Your task to perform on an android device: turn on data saver in the chrome app Image 0: 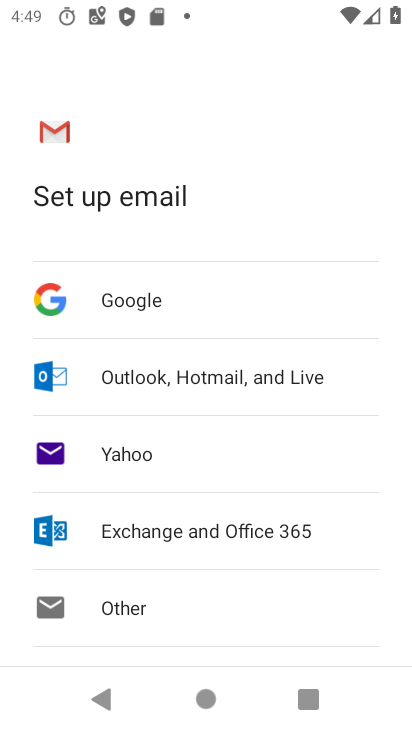
Step 0: press home button
Your task to perform on an android device: turn on data saver in the chrome app Image 1: 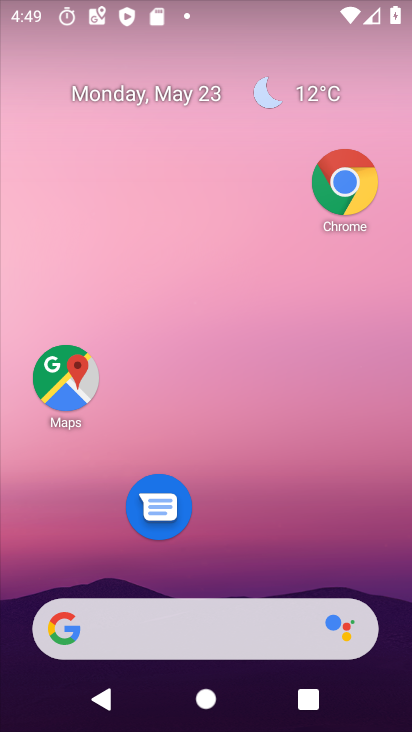
Step 1: click (337, 185)
Your task to perform on an android device: turn on data saver in the chrome app Image 2: 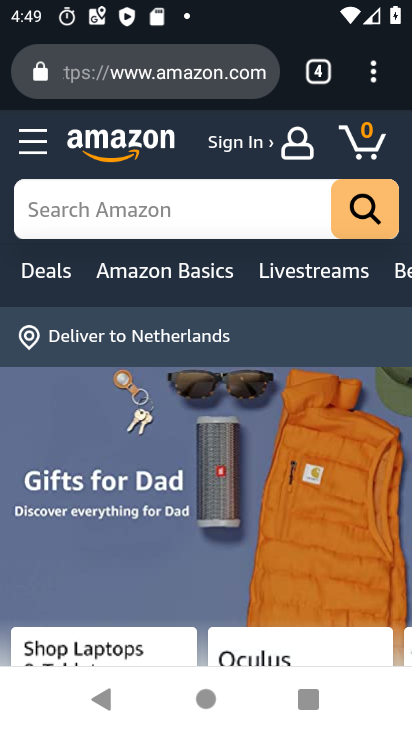
Step 2: click (376, 77)
Your task to perform on an android device: turn on data saver in the chrome app Image 3: 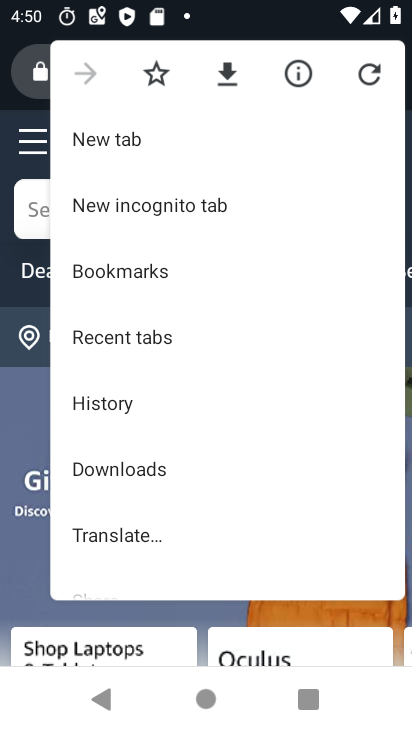
Step 3: drag from (105, 511) to (249, 13)
Your task to perform on an android device: turn on data saver in the chrome app Image 4: 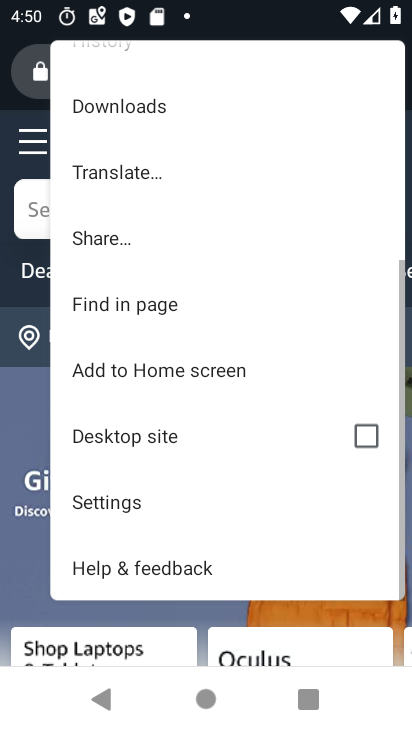
Step 4: click (151, 511)
Your task to perform on an android device: turn on data saver in the chrome app Image 5: 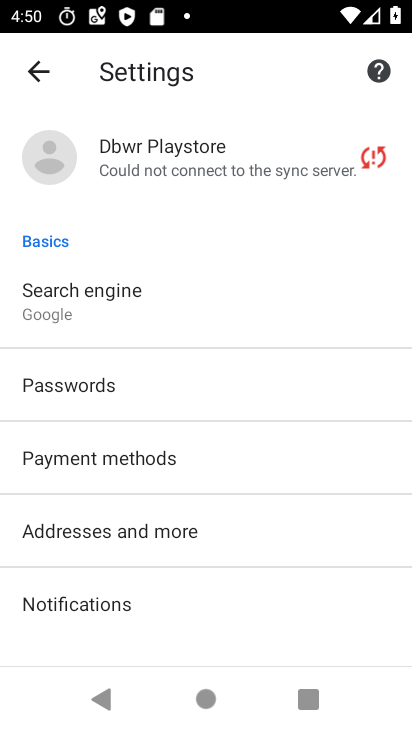
Step 5: drag from (112, 606) to (279, 202)
Your task to perform on an android device: turn on data saver in the chrome app Image 6: 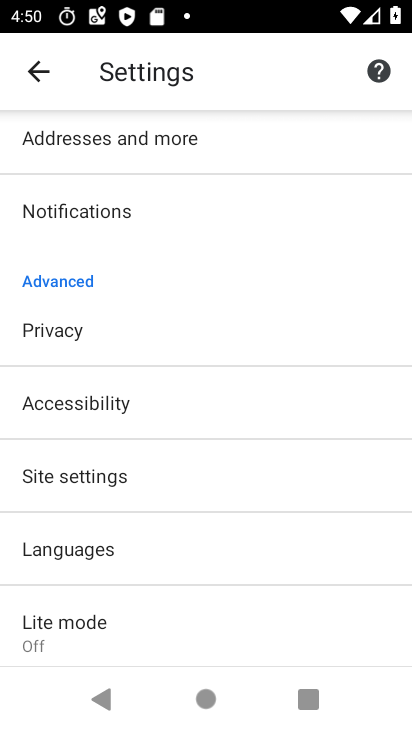
Step 6: click (76, 619)
Your task to perform on an android device: turn on data saver in the chrome app Image 7: 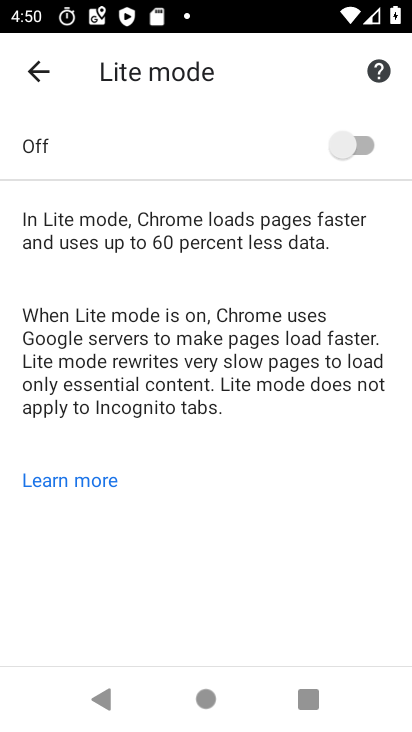
Step 7: click (373, 142)
Your task to perform on an android device: turn on data saver in the chrome app Image 8: 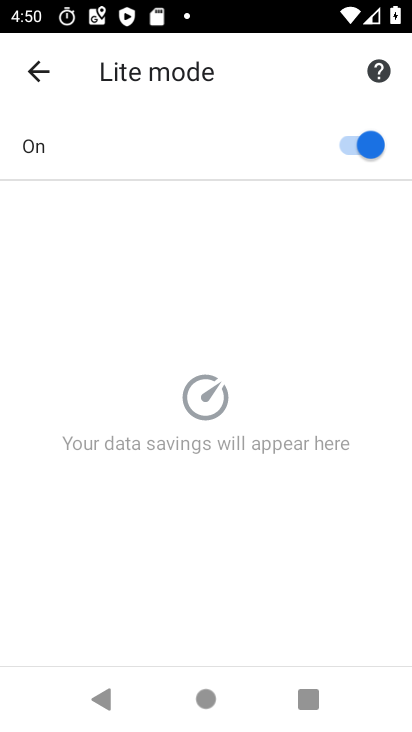
Step 8: task complete